Your task to perform on an android device: turn on improve location accuracy Image 0: 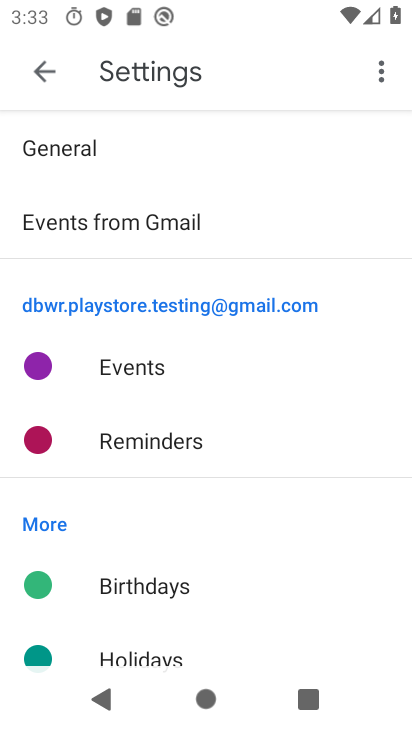
Step 0: press home button
Your task to perform on an android device: turn on improve location accuracy Image 1: 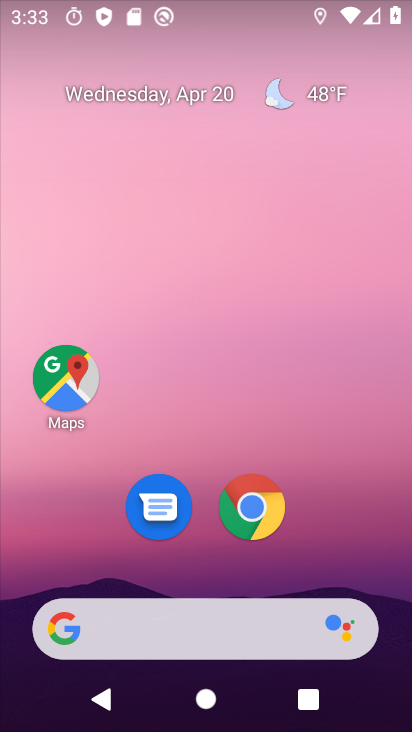
Step 1: drag from (199, 616) to (229, 208)
Your task to perform on an android device: turn on improve location accuracy Image 2: 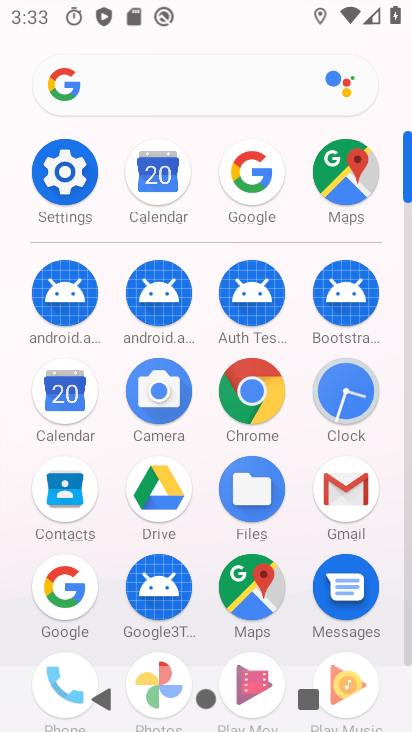
Step 2: click (73, 186)
Your task to perform on an android device: turn on improve location accuracy Image 3: 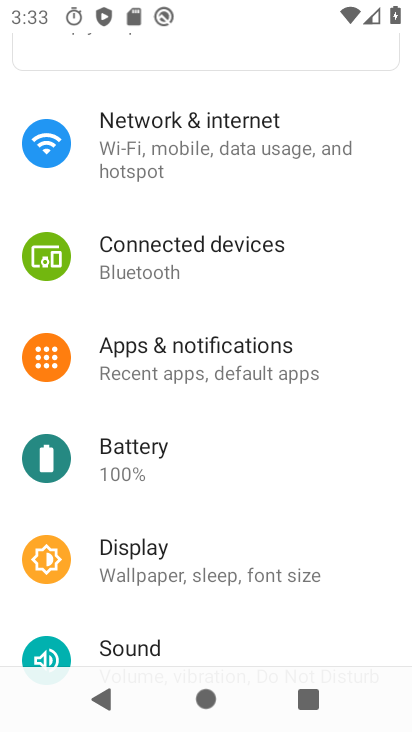
Step 3: drag from (164, 544) to (154, 98)
Your task to perform on an android device: turn on improve location accuracy Image 4: 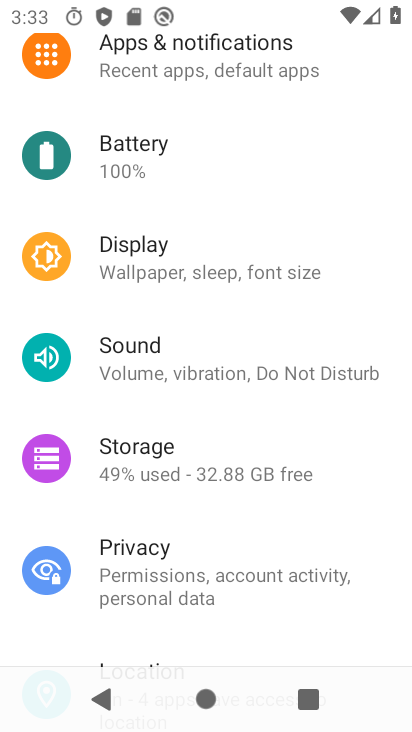
Step 4: drag from (161, 386) to (140, 7)
Your task to perform on an android device: turn on improve location accuracy Image 5: 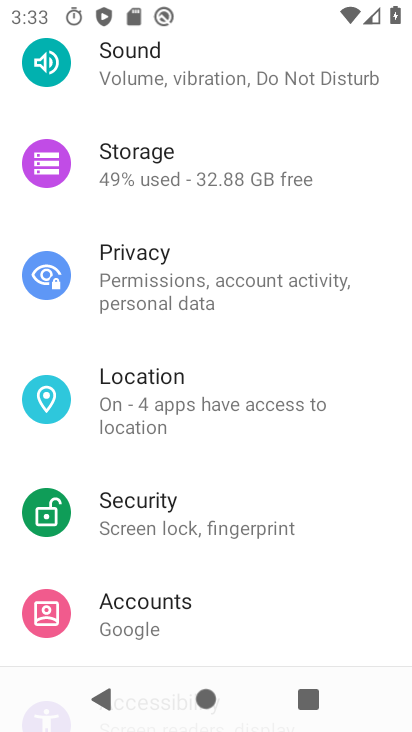
Step 5: click (157, 374)
Your task to perform on an android device: turn on improve location accuracy Image 6: 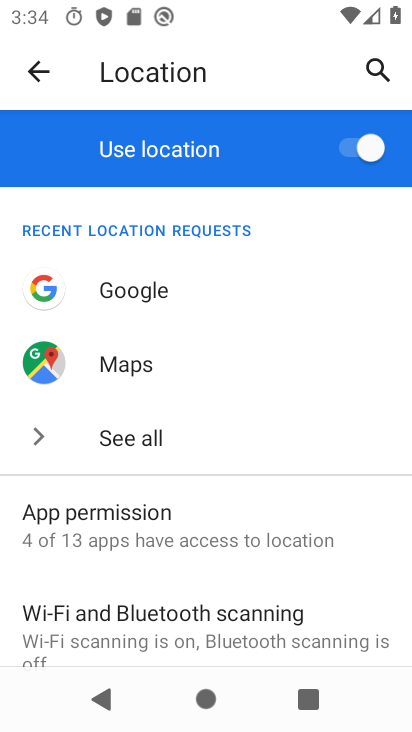
Step 6: drag from (221, 627) to (238, 278)
Your task to perform on an android device: turn on improve location accuracy Image 7: 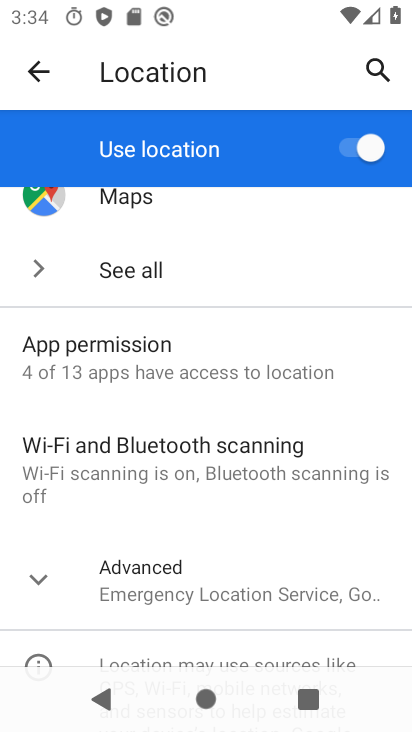
Step 7: click (178, 599)
Your task to perform on an android device: turn on improve location accuracy Image 8: 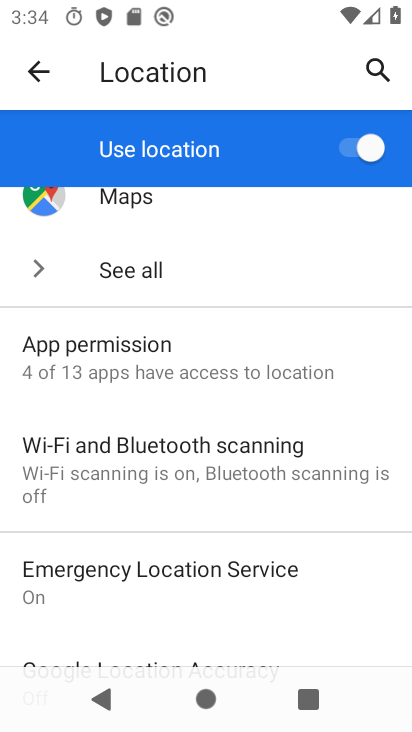
Step 8: drag from (152, 589) to (152, 326)
Your task to perform on an android device: turn on improve location accuracy Image 9: 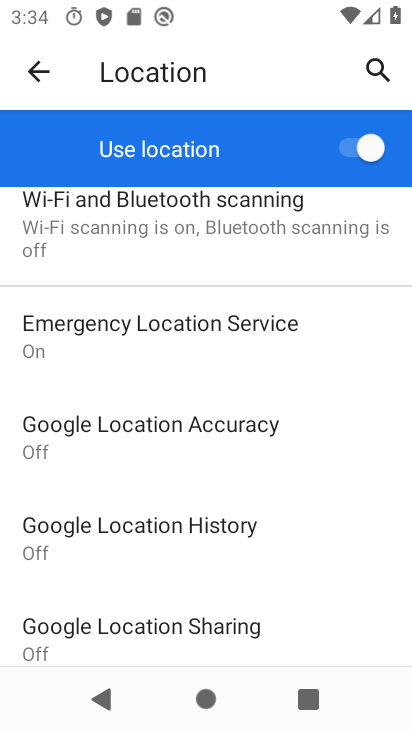
Step 9: click (186, 436)
Your task to perform on an android device: turn on improve location accuracy Image 10: 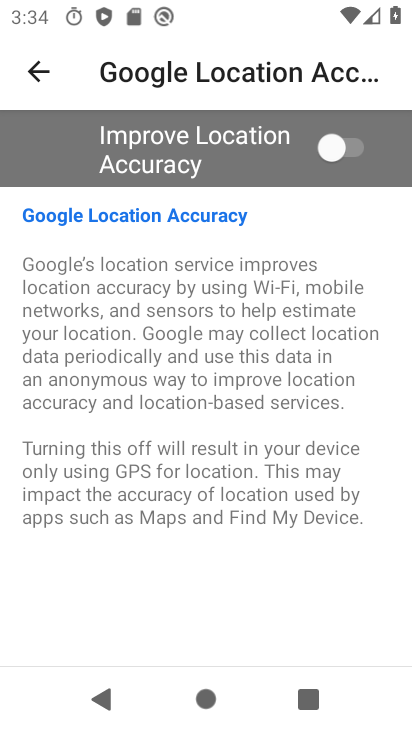
Step 10: click (332, 155)
Your task to perform on an android device: turn on improve location accuracy Image 11: 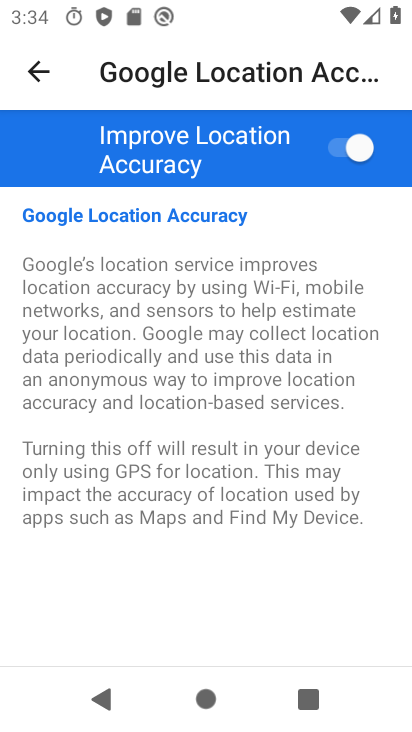
Step 11: task complete